Your task to perform on an android device: turn notification dots on Image 0: 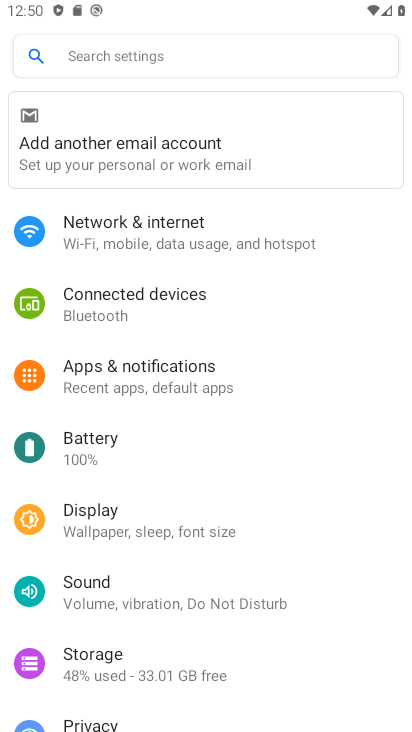
Step 0: click (177, 377)
Your task to perform on an android device: turn notification dots on Image 1: 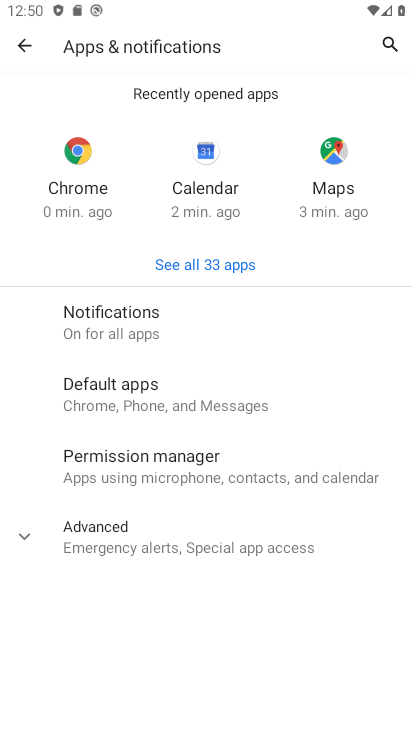
Step 1: click (132, 321)
Your task to perform on an android device: turn notification dots on Image 2: 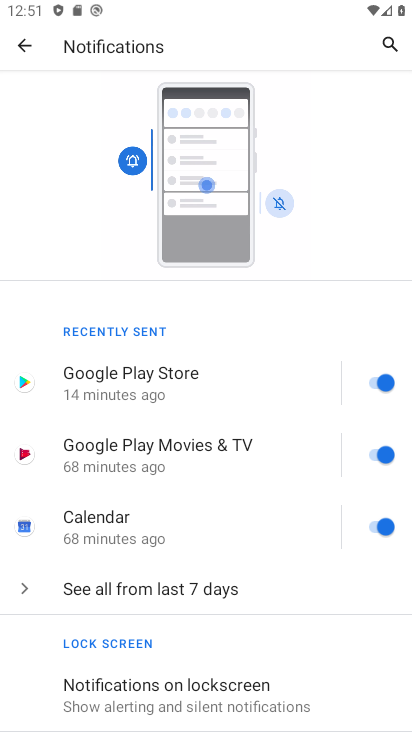
Step 2: drag from (264, 414) to (259, 229)
Your task to perform on an android device: turn notification dots on Image 3: 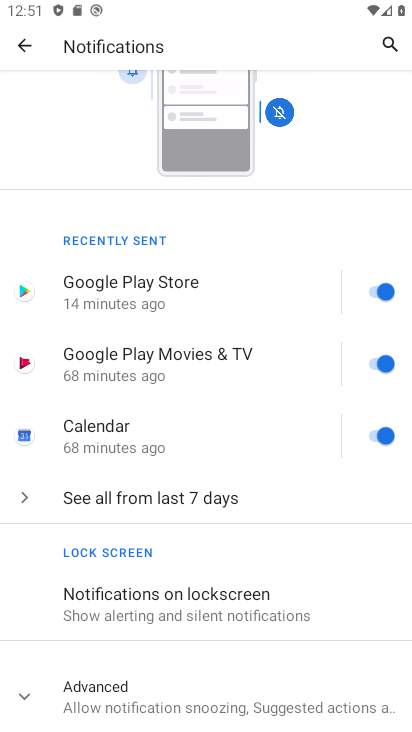
Step 3: drag from (217, 447) to (202, 178)
Your task to perform on an android device: turn notification dots on Image 4: 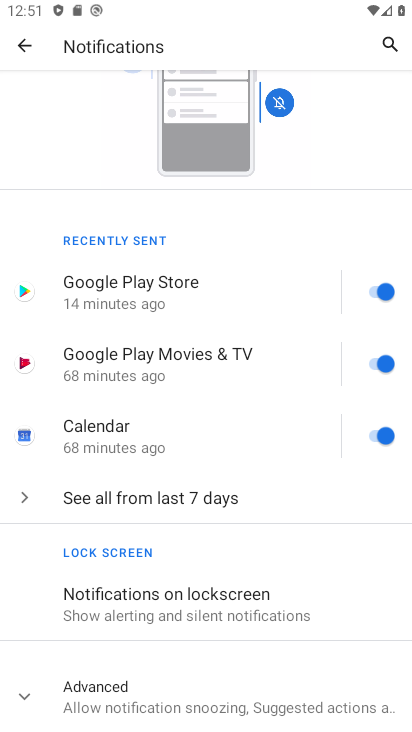
Step 4: click (16, 692)
Your task to perform on an android device: turn notification dots on Image 5: 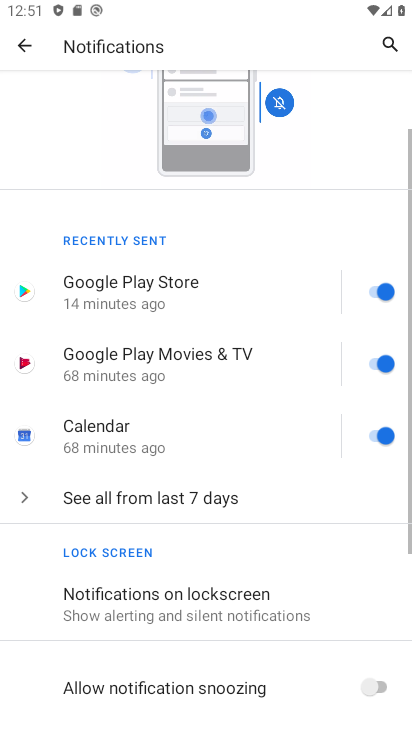
Step 5: task complete